Your task to perform on an android device: move an email to a new category in the gmail app Image 0: 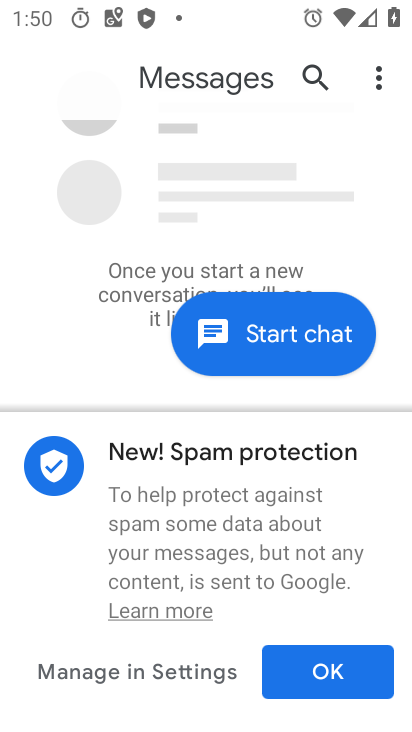
Step 0: press back button
Your task to perform on an android device: move an email to a new category in the gmail app Image 1: 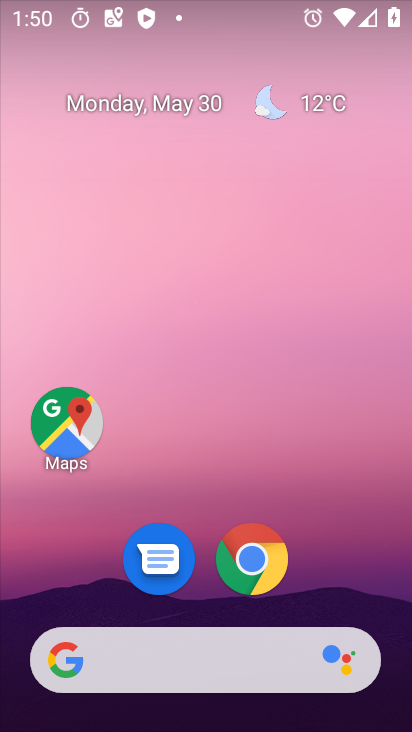
Step 1: drag from (188, 595) to (310, 57)
Your task to perform on an android device: move an email to a new category in the gmail app Image 2: 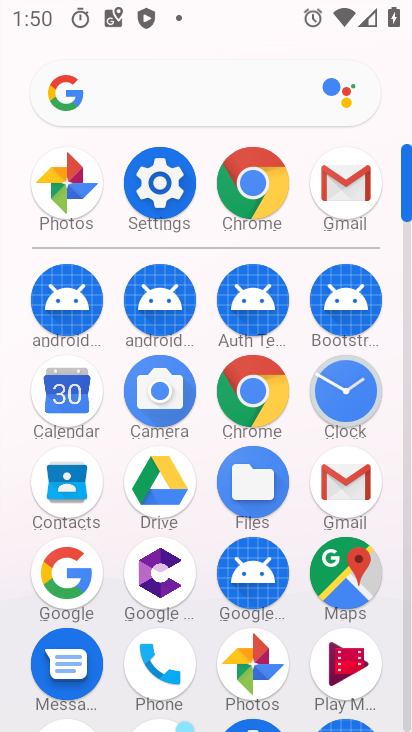
Step 2: click (359, 179)
Your task to perform on an android device: move an email to a new category in the gmail app Image 3: 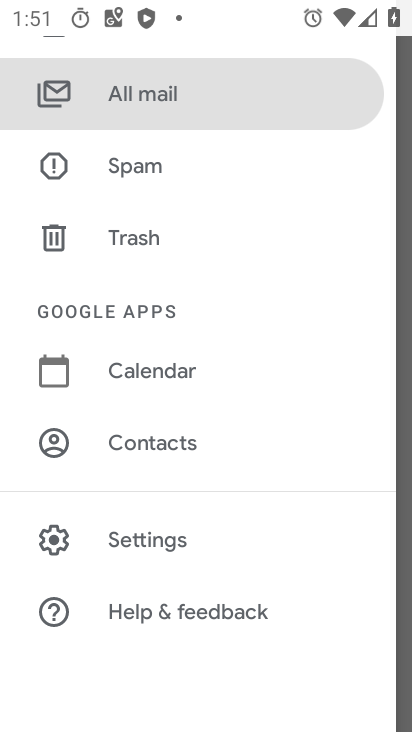
Step 3: click (154, 95)
Your task to perform on an android device: move an email to a new category in the gmail app Image 4: 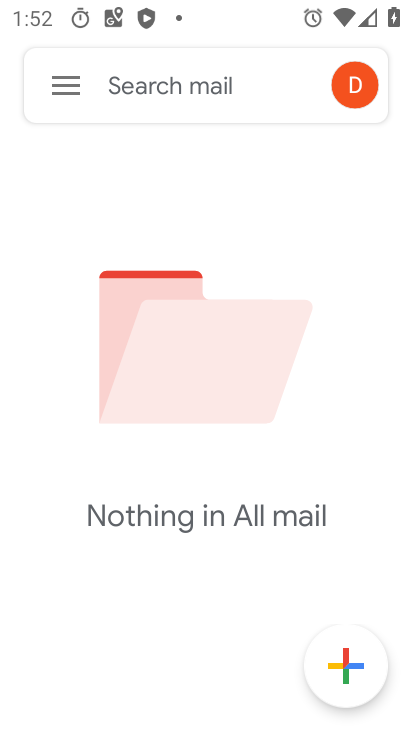
Step 4: task complete